Your task to perform on an android device: Go to Maps Image 0: 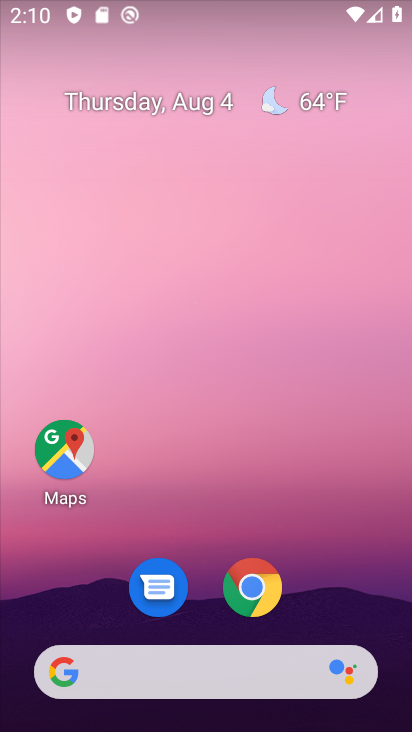
Step 0: click (64, 453)
Your task to perform on an android device: Go to Maps Image 1: 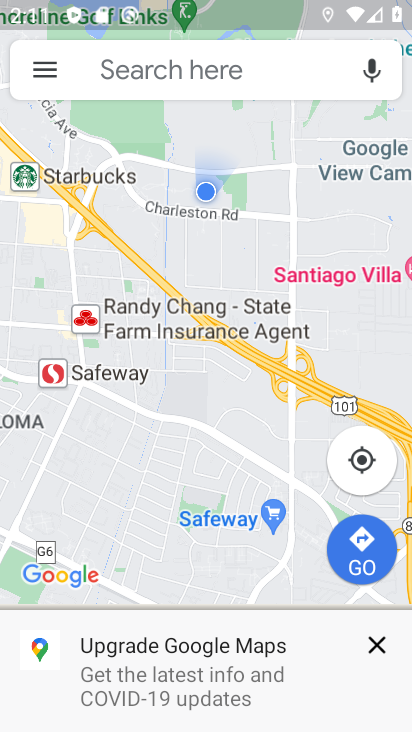
Step 1: task complete